Your task to perform on an android device: check the backup settings in the google photos Image 0: 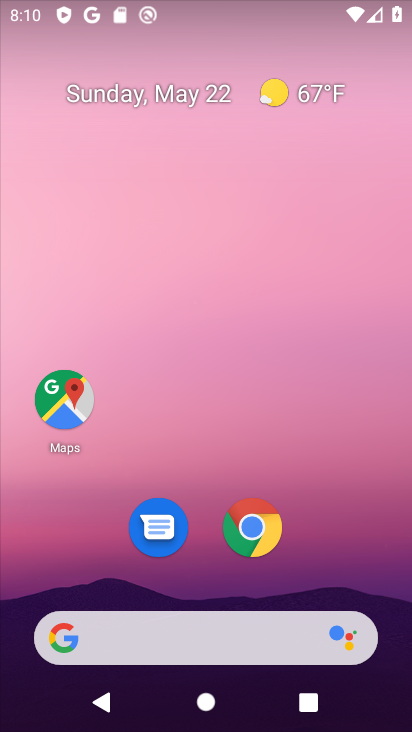
Step 0: drag from (207, 575) to (213, 140)
Your task to perform on an android device: check the backup settings in the google photos Image 1: 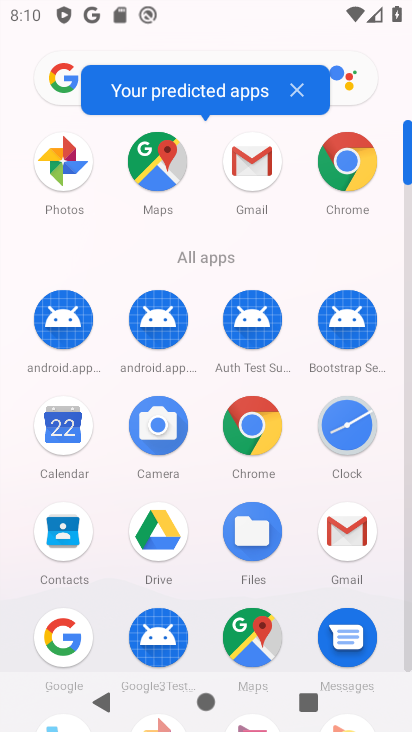
Step 1: drag from (211, 592) to (202, 134)
Your task to perform on an android device: check the backup settings in the google photos Image 2: 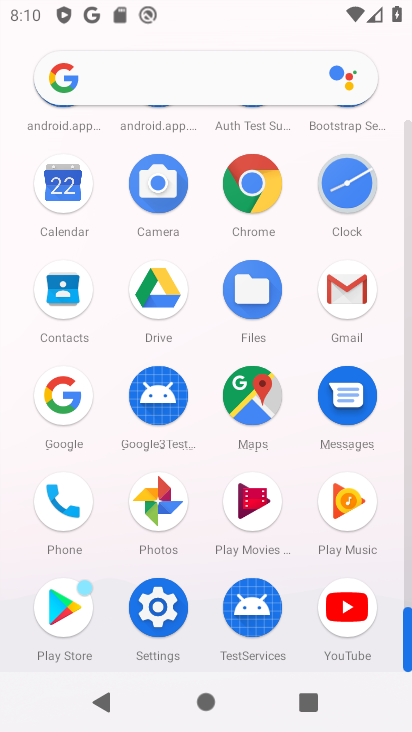
Step 2: click (157, 492)
Your task to perform on an android device: check the backup settings in the google photos Image 3: 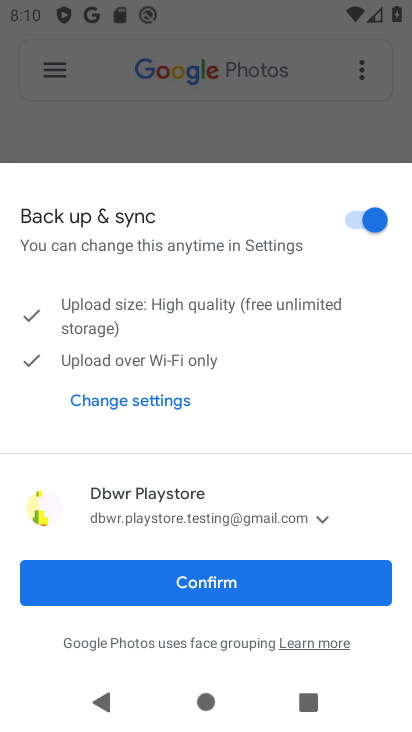
Step 3: click (214, 580)
Your task to perform on an android device: check the backup settings in the google photos Image 4: 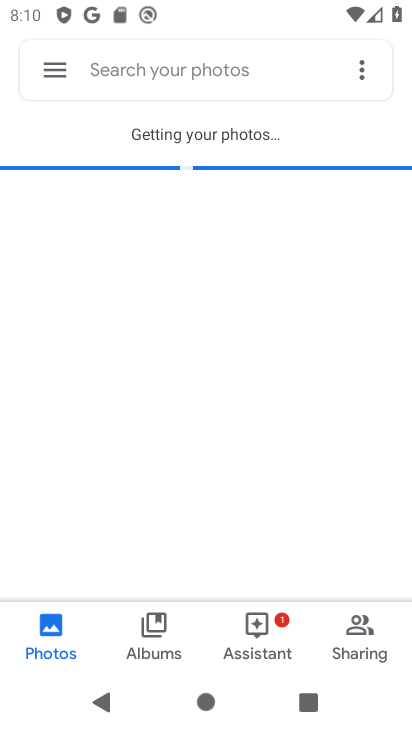
Step 4: click (364, 61)
Your task to perform on an android device: check the backup settings in the google photos Image 5: 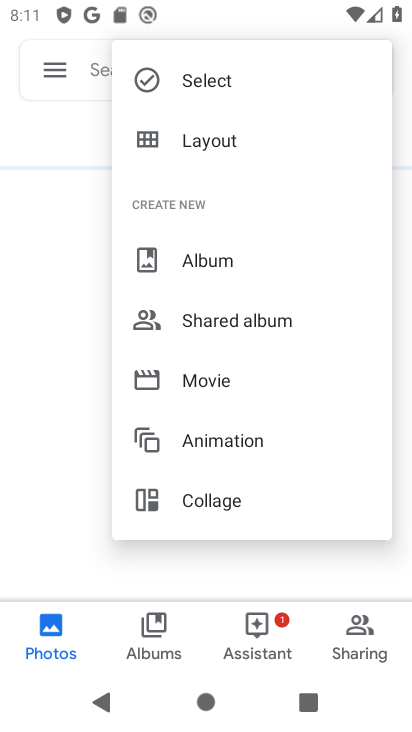
Step 5: click (58, 367)
Your task to perform on an android device: check the backup settings in the google photos Image 6: 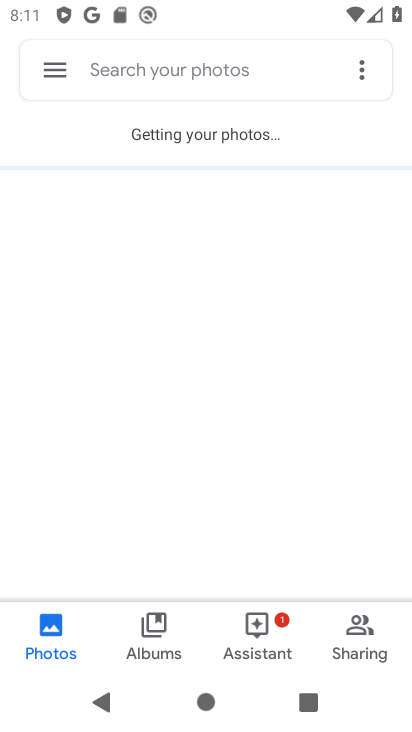
Step 6: click (54, 70)
Your task to perform on an android device: check the backup settings in the google photos Image 7: 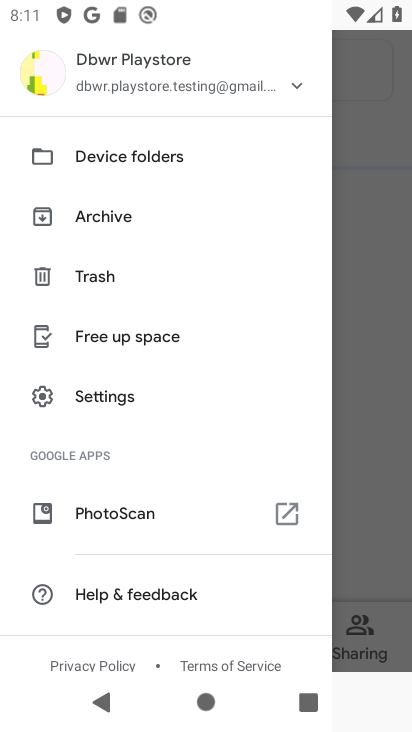
Step 7: click (137, 395)
Your task to perform on an android device: check the backup settings in the google photos Image 8: 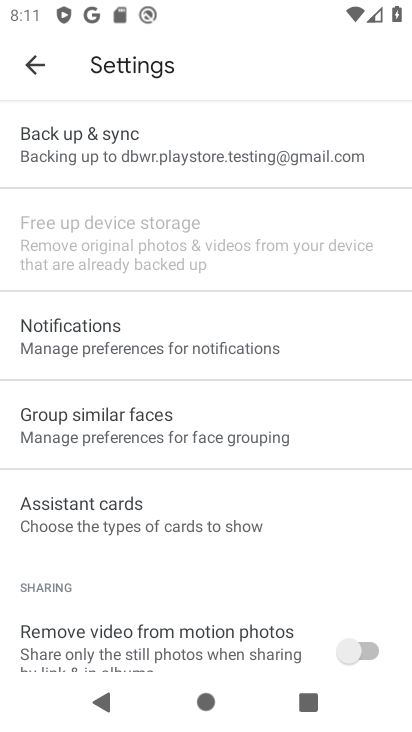
Step 8: click (150, 144)
Your task to perform on an android device: check the backup settings in the google photos Image 9: 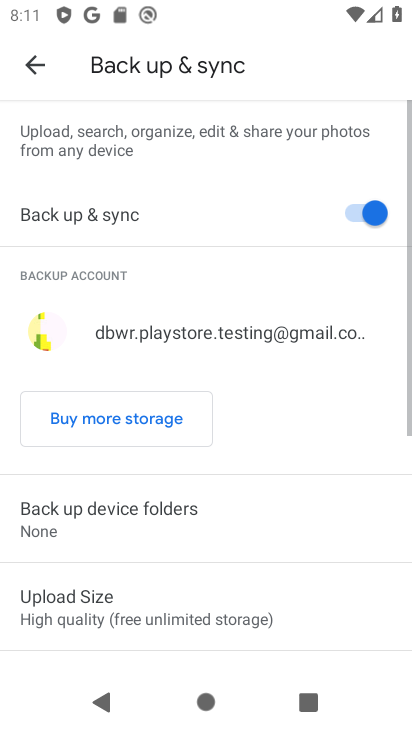
Step 9: task complete